Your task to perform on an android device: Open Google Image 0: 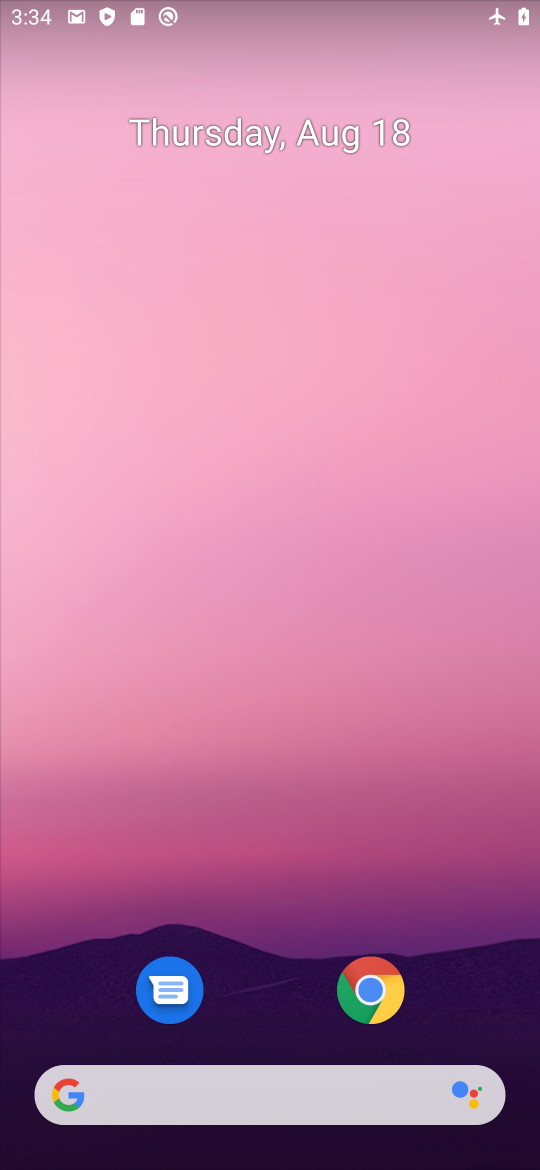
Step 0: drag from (311, 943) to (400, 23)
Your task to perform on an android device: Open Google Image 1: 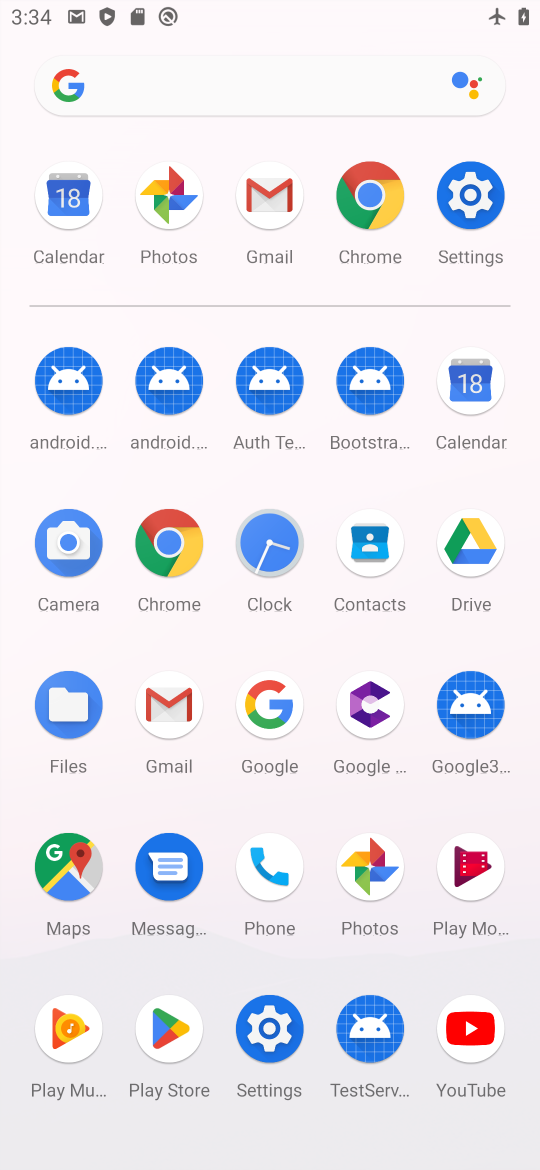
Step 1: click (257, 699)
Your task to perform on an android device: Open Google Image 2: 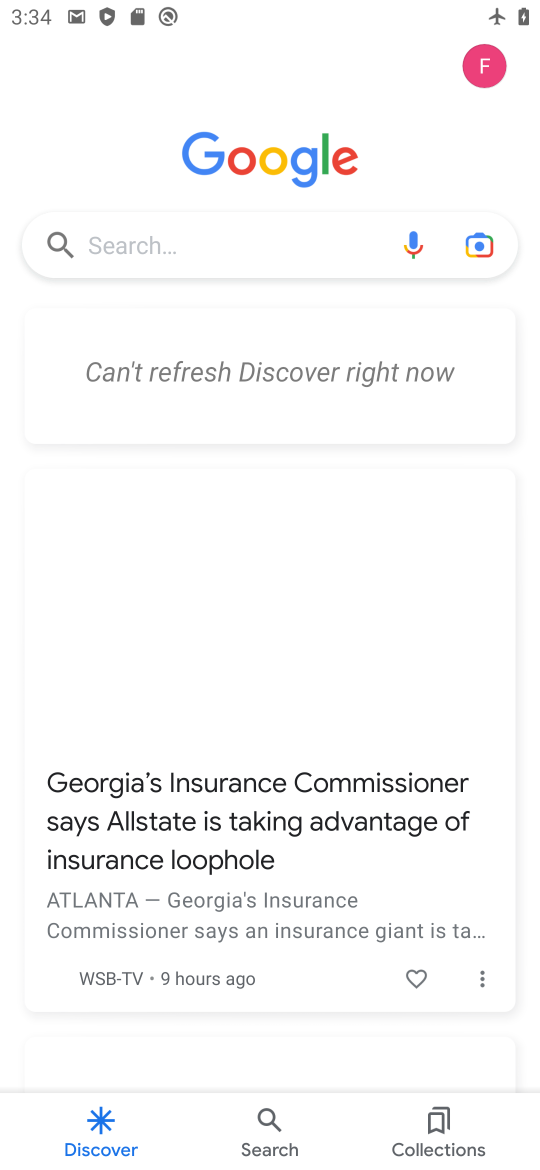
Step 2: task complete